Your task to perform on an android device: Go to CNN.com Image 0: 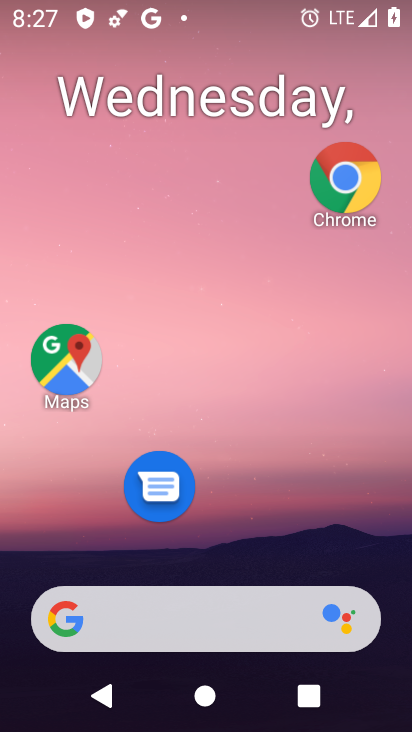
Step 0: drag from (232, 619) to (262, 111)
Your task to perform on an android device: Go to CNN.com Image 1: 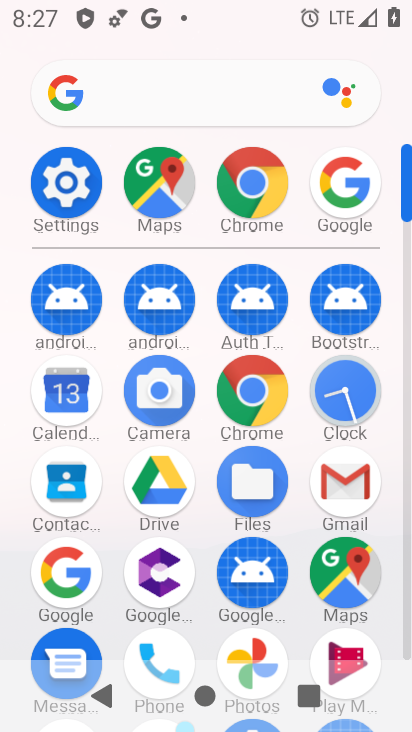
Step 1: click (271, 186)
Your task to perform on an android device: Go to CNN.com Image 2: 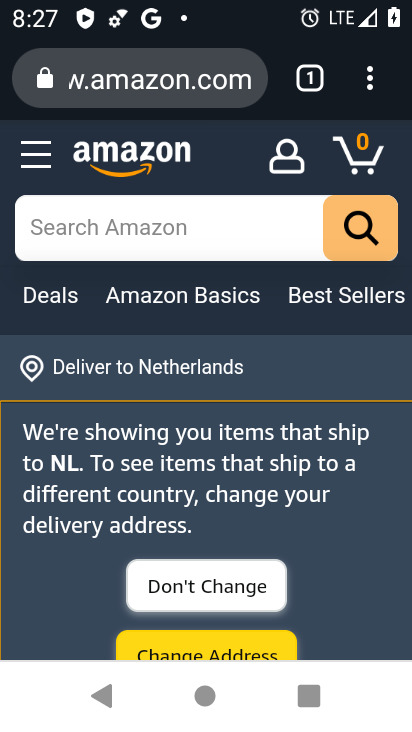
Step 2: click (228, 85)
Your task to perform on an android device: Go to CNN.com Image 3: 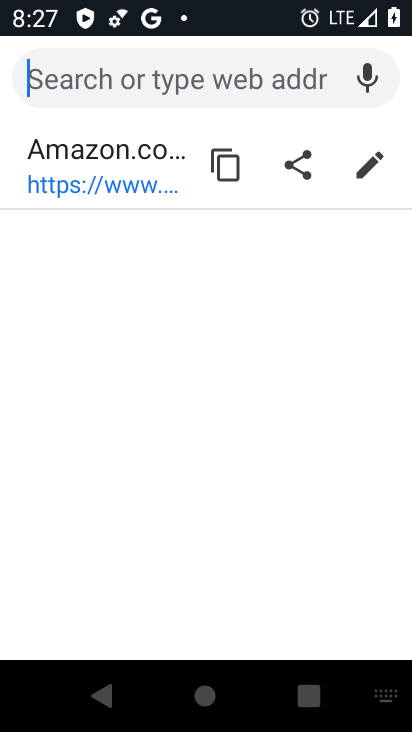
Step 3: type "cnn.com"
Your task to perform on an android device: Go to CNN.com Image 4: 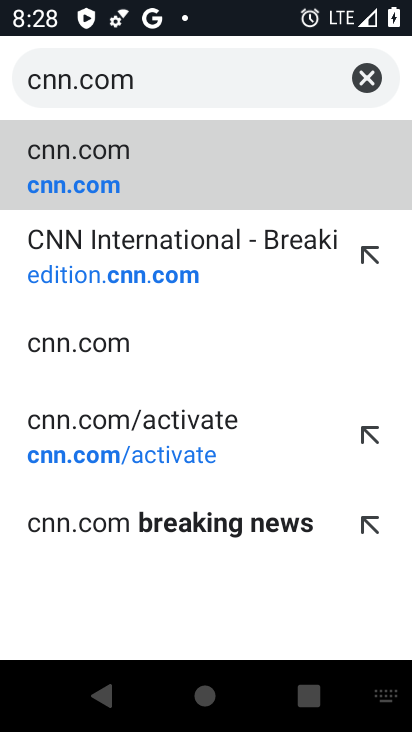
Step 4: click (236, 428)
Your task to perform on an android device: Go to CNN.com Image 5: 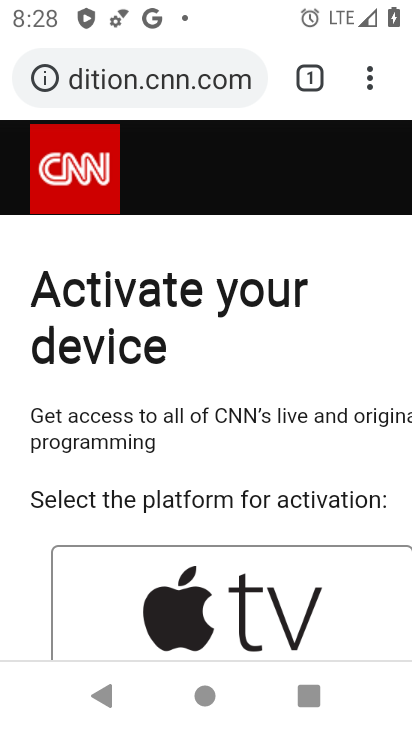
Step 5: task complete